Your task to perform on an android device: Is it going to rain tomorrow? Image 0: 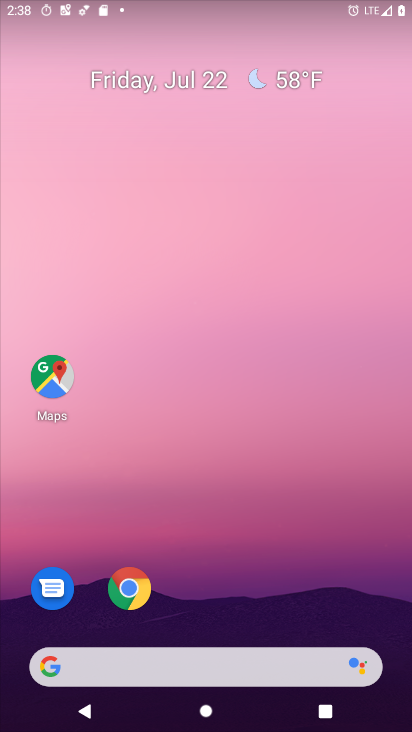
Step 0: drag from (228, 602) to (271, 26)
Your task to perform on an android device: Is it going to rain tomorrow? Image 1: 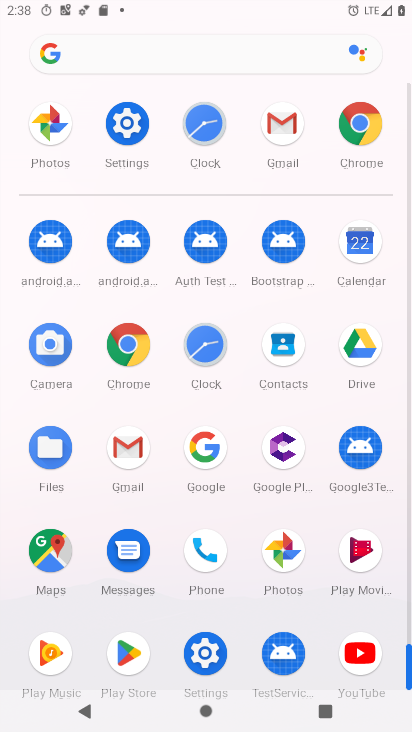
Step 1: click (127, 338)
Your task to perform on an android device: Is it going to rain tomorrow? Image 2: 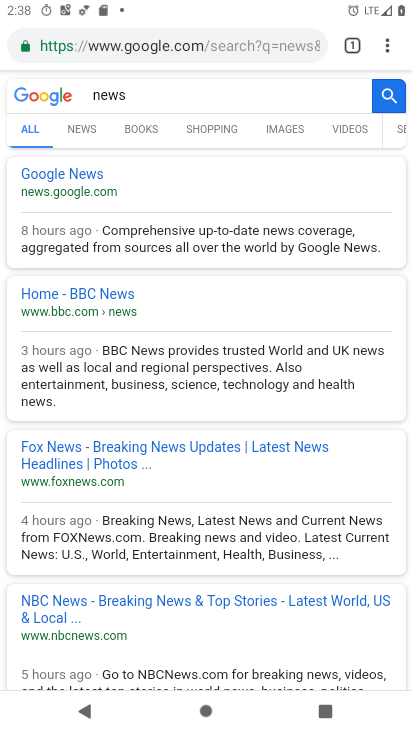
Step 2: click (146, 46)
Your task to perform on an android device: Is it going to rain tomorrow? Image 3: 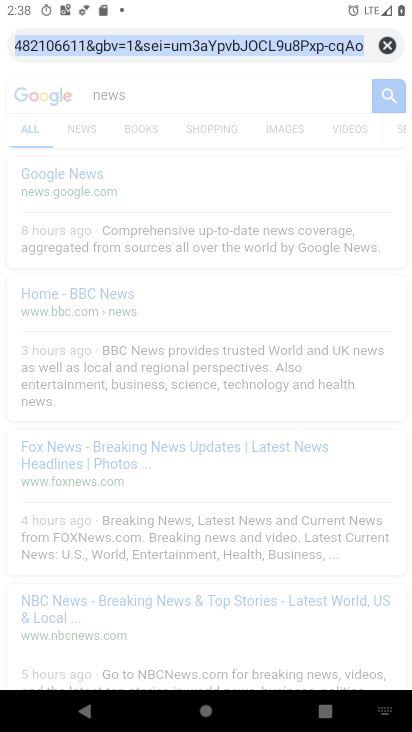
Step 3: click (381, 42)
Your task to perform on an android device: Is it going to rain tomorrow? Image 4: 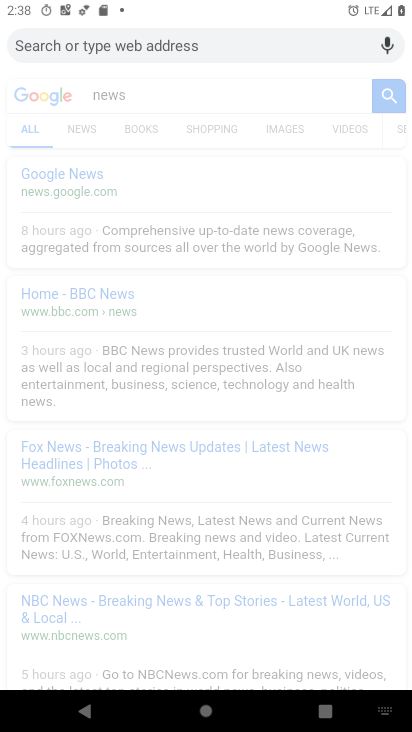
Step 4: type "Is it going to rain tomorrow?"
Your task to perform on an android device: Is it going to rain tomorrow? Image 5: 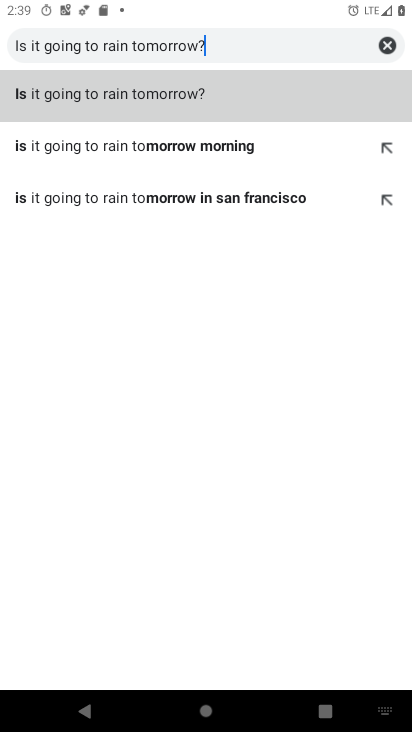
Step 5: click (177, 85)
Your task to perform on an android device: Is it going to rain tomorrow? Image 6: 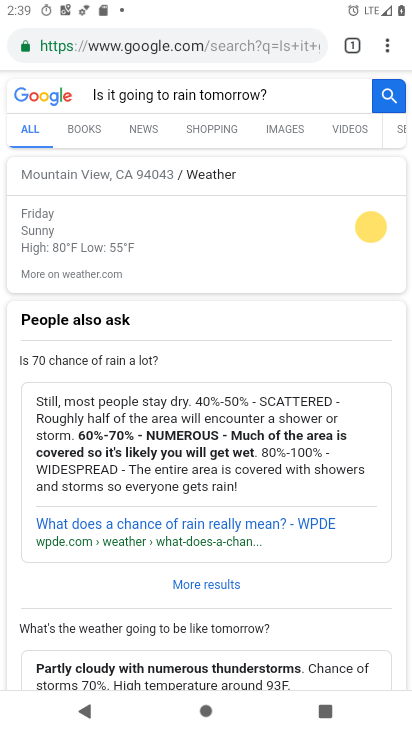
Step 6: task complete